Your task to perform on an android device: Clear the shopping cart on ebay. Add macbook air to the cart on ebay Image 0: 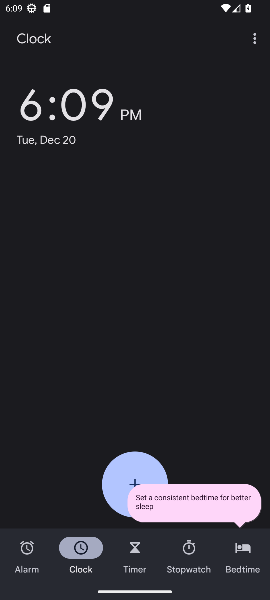
Step 0: press home button
Your task to perform on an android device: Clear the shopping cart on ebay. Add macbook air to the cart on ebay Image 1: 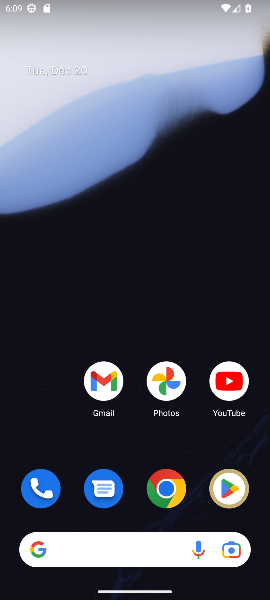
Step 1: drag from (60, 431) to (48, 96)
Your task to perform on an android device: Clear the shopping cart on ebay. Add macbook air to the cart on ebay Image 2: 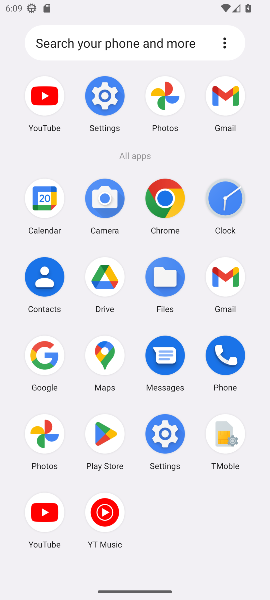
Step 2: click (41, 361)
Your task to perform on an android device: Clear the shopping cart on ebay. Add macbook air to the cart on ebay Image 3: 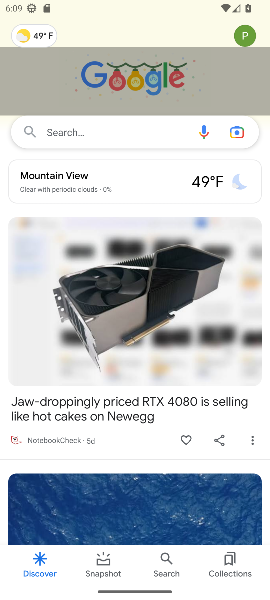
Step 3: click (75, 130)
Your task to perform on an android device: Clear the shopping cart on ebay. Add macbook air to the cart on ebay Image 4: 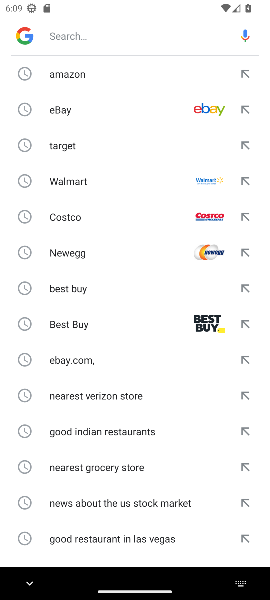
Step 4: type "ebay"
Your task to perform on an android device: Clear the shopping cart on ebay. Add macbook air to the cart on ebay Image 5: 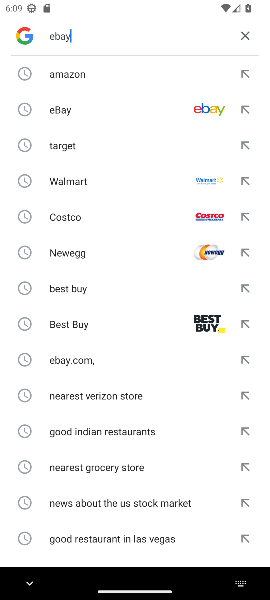
Step 5: press enter
Your task to perform on an android device: Clear the shopping cart on ebay. Add macbook air to the cart on ebay Image 6: 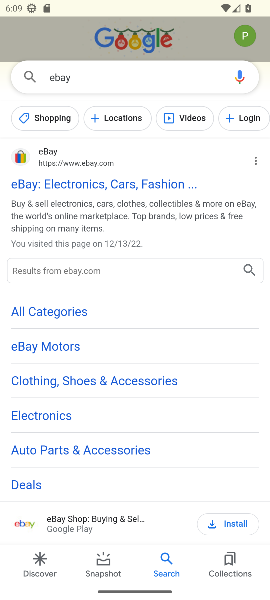
Step 6: click (67, 180)
Your task to perform on an android device: Clear the shopping cart on ebay. Add macbook air to the cart on ebay Image 7: 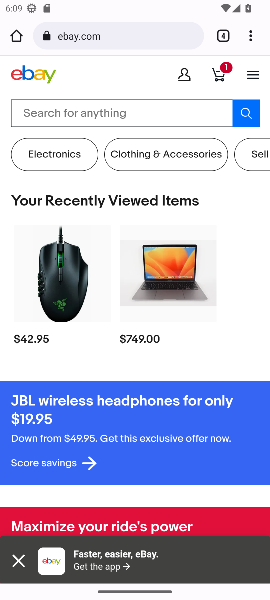
Step 7: click (214, 73)
Your task to perform on an android device: Clear the shopping cart on ebay. Add macbook air to the cart on ebay Image 8: 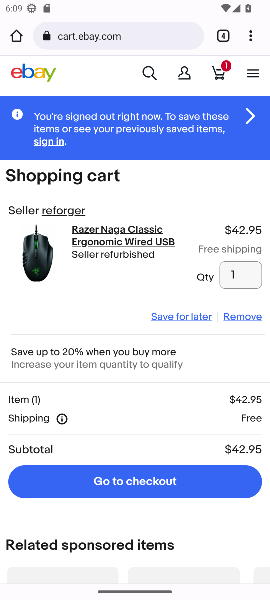
Step 8: click (241, 311)
Your task to perform on an android device: Clear the shopping cart on ebay. Add macbook air to the cart on ebay Image 9: 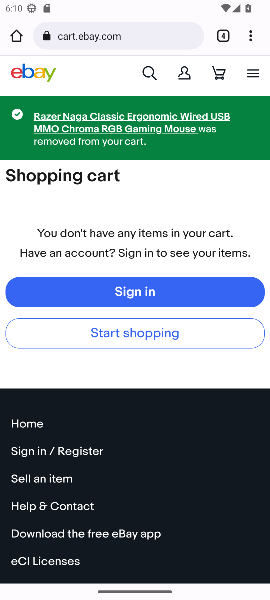
Step 9: click (145, 69)
Your task to perform on an android device: Clear the shopping cart on ebay. Add macbook air to the cart on ebay Image 10: 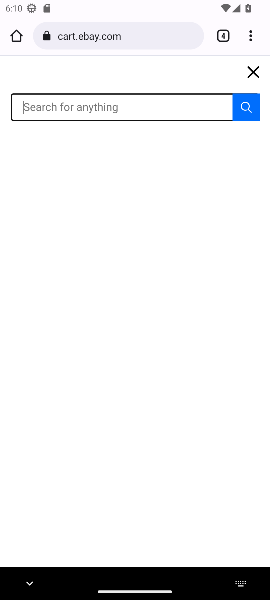
Step 10: type "macbook air "
Your task to perform on an android device: Clear the shopping cart on ebay. Add macbook air to the cart on ebay Image 11: 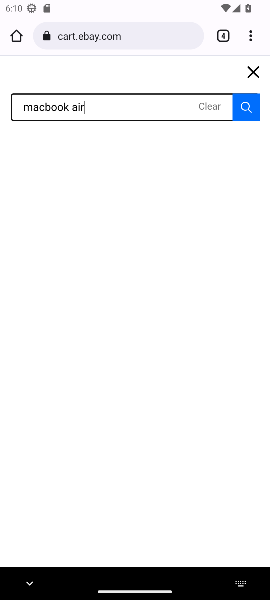
Step 11: press enter
Your task to perform on an android device: Clear the shopping cart on ebay. Add macbook air to the cart on ebay Image 12: 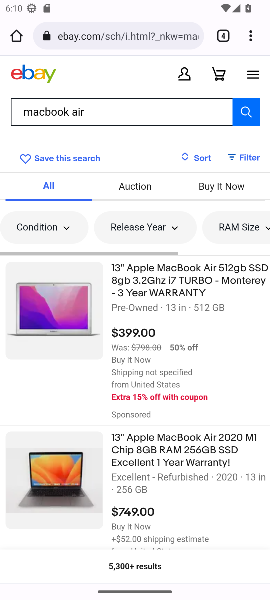
Step 12: click (173, 302)
Your task to perform on an android device: Clear the shopping cart on ebay. Add macbook air to the cart on ebay Image 13: 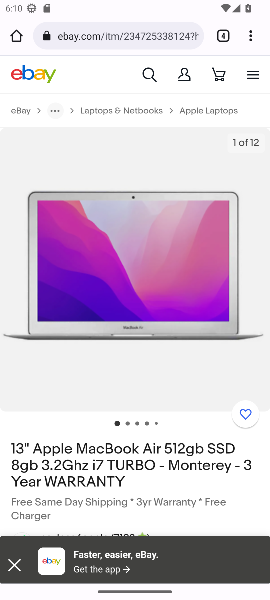
Step 13: click (15, 570)
Your task to perform on an android device: Clear the shopping cart on ebay. Add macbook air to the cart on ebay Image 14: 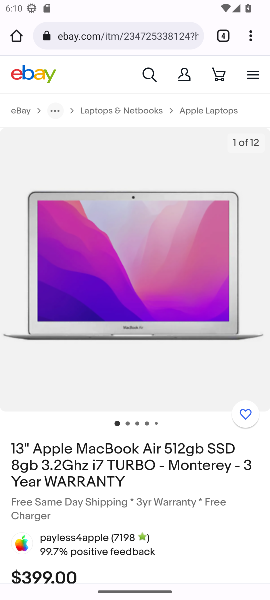
Step 14: drag from (170, 499) to (170, 148)
Your task to perform on an android device: Clear the shopping cart on ebay. Add macbook air to the cart on ebay Image 15: 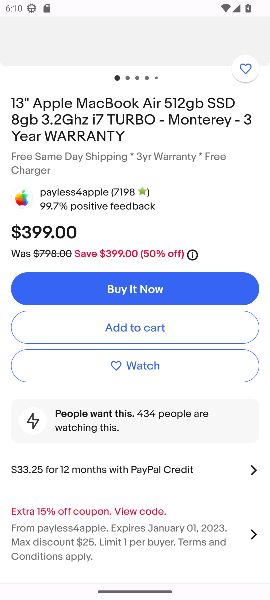
Step 15: click (115, 323)
Your task to perform on an android device: Clear the shopping cart on ebay. Add macbook air to the cart on ebay Image 16: 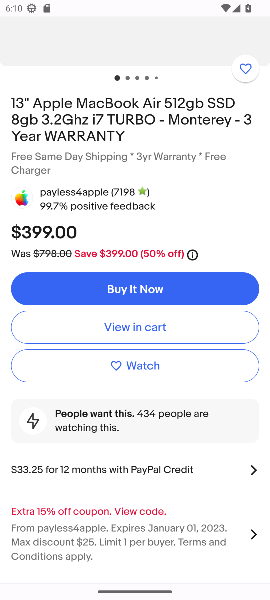
Step 16: task complete